Your task to perform on an android device: View the shopping cart on amazon.com. Add logitech g933 to the cart on amazon.com, then select checkout. Image 0: 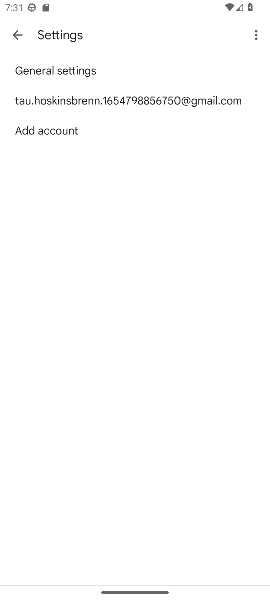
Step 0: press home button
Your task to perform on an android device: View the shopping cart on amazon.com. Add logitech g933 to the cart on amazon.com, then select checkout. Image 1: 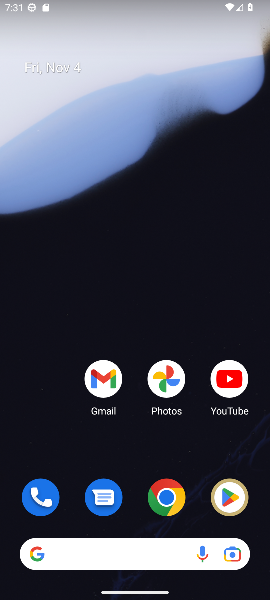
Step 1: click (171, 503)
Your task to perform on an android device: View the shopping cart on amazon.com. Add logitech g933 to the cart on amazon.com, then select checkout. Image 2: 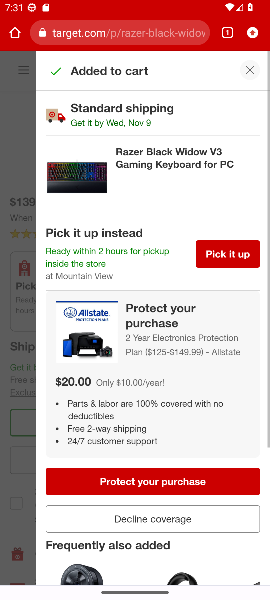
Step 2: click (96, 27)
Your task to perform on an android device: View the shopping cart on amazon.com. Add logitech g933 to the cart on amazon.com, then select checkout. Image 3: 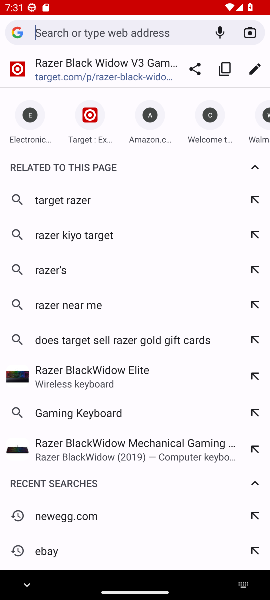
Step 3: click (151, 115)
Your task to perform on an android device: View the shopping cart on amazon.com. Add logitech g933 to the cart on amazon.com, then select checkout. Image 4: 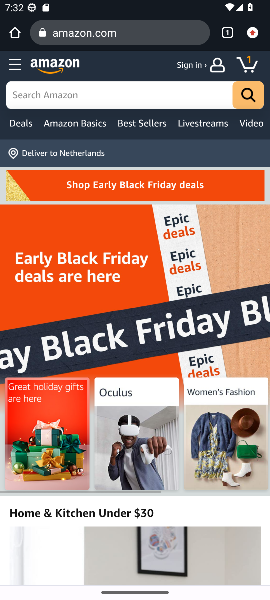
Step 4: click (252, 69)
Your task to perform on an android device: View the shopping cart on amazon.com. Add logitech g933 to the cart on amazon.com, then select checkout. Image 5: 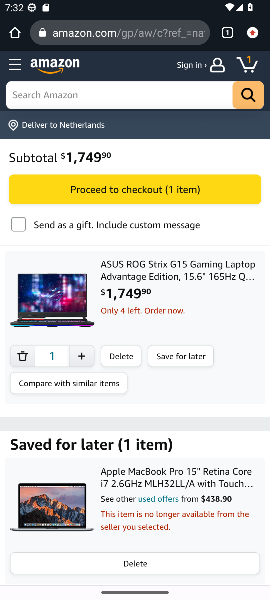
Step 5: click (127, 102)
Your task to perform on an android device: View the shopping cart on amazon.com. Add logitech g933 to the cart on amazon.com, then select checkout. Image 6: 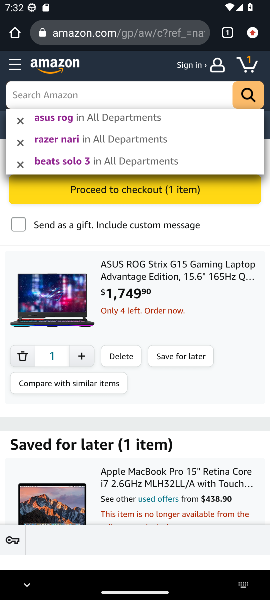
Step 6: type "logitech g933 "
Your task to perform on an android device: View the shopping cart on amazon.com. Add logitech g933 to the cart on amazon.com, then select checkout. Image 7: 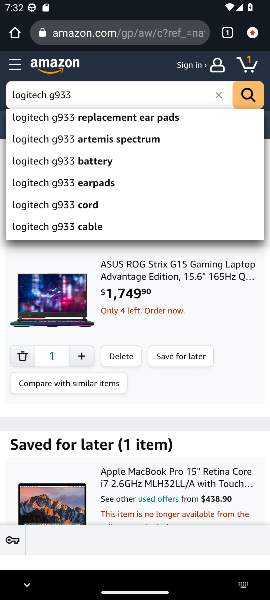
Step 7: click (252, 91)
Your task to perform on an android device: View the shopping cart on amazon.com. Add logitech g933 to the cart on amazon.com, then select checkout. Image 8: 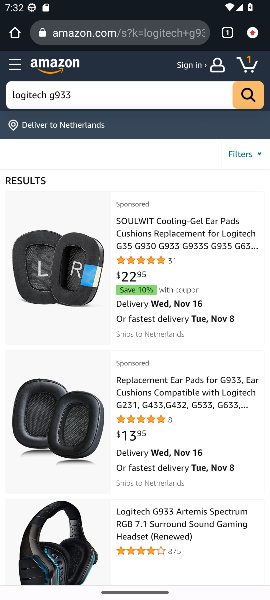
Step 8: click (90, 262)
Your task to perform on an android device: View the shopping cart on amazon.com. Add logitech g933 to the cart on amazon.com, then select checkout. Image 9: 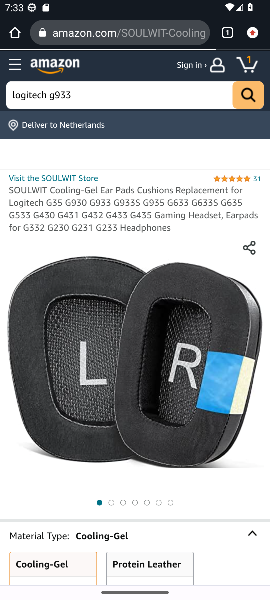
Step 9: drag from (125, 416) to (138, 212)
Your task to perform on an android device: View the shopping cart on amazon.com. Add logitech g933 to the cart on amazon.com, then select checkout. Image 10: 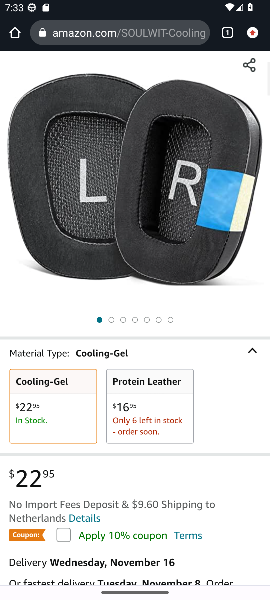
Step 10: drag from (122, 455) to (119, 217)
Your task to perform on an android device: View the shopping cart on amazon.com. Add logitech g933 to the cart on amazon.com, then select checkout. Image 11: 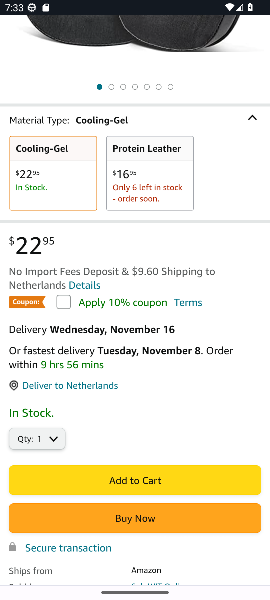
Step 11: click (133, 473)
Your task to perform on an android device: View the shopping cart on amazon.com. Add logitech g933 to the cart on amazon.com, then select checkout. Image 12: 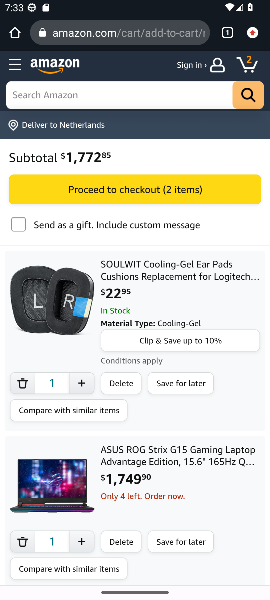
Step 12: click (153, 190)
Your task to perform on an android device: View the shopping cart on amazon.com. Add logitech g933 to the cart on amazon.com, then select checkout. Image 13: 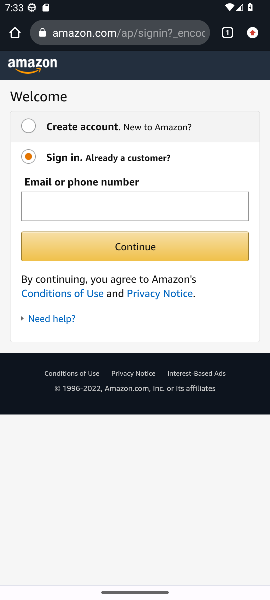
Step 13: task complete